Your task to perform on an android device: Go to Yahoo.com Image 0: 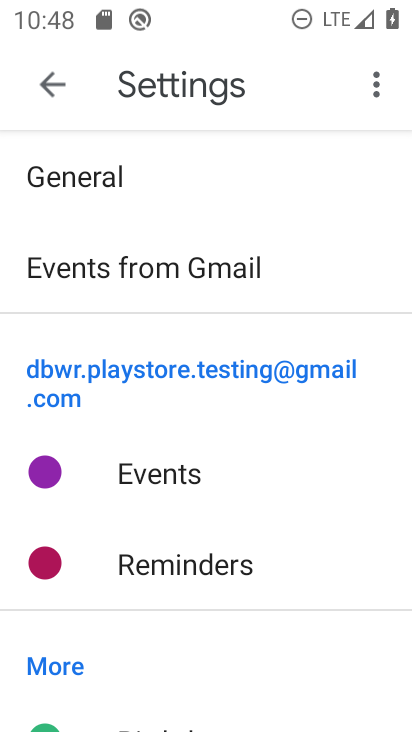
Step 0: press home button
Your task to perform on an android device: Go to Yahoo.com Image 1: 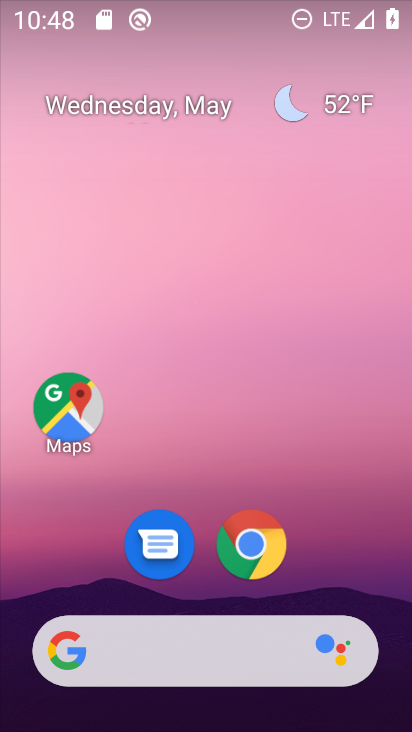
Step 1: click (256, 562)
Your task to perform on an android device: Go to Yahoo.com Image 2: 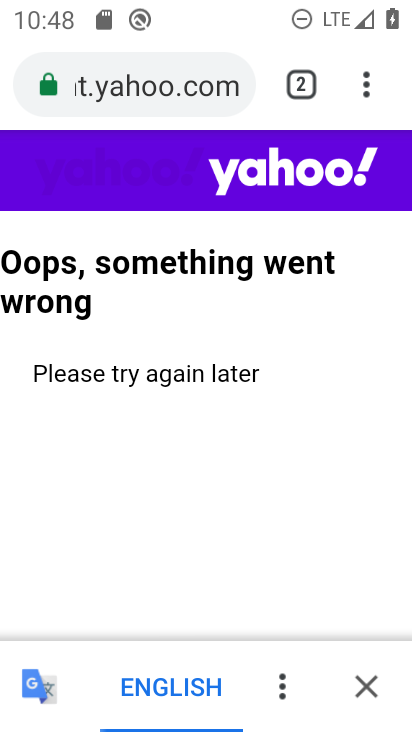
Step 2: task complete